Your task to perform on an android device: Open calendar and show me the third week of next month Image 0: 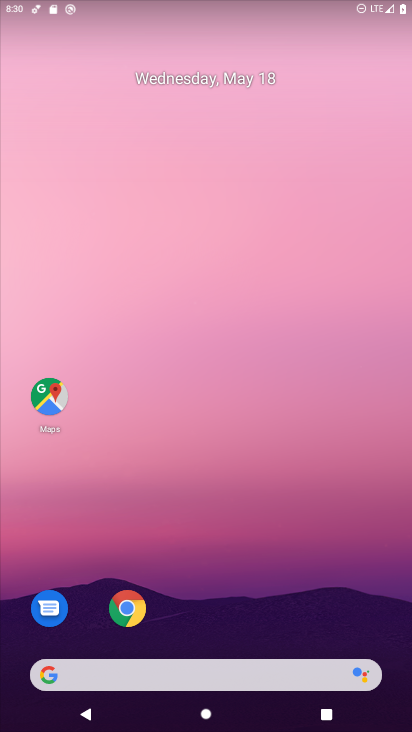
Step 0: drag from (271, 600) to (232, 105)
Your task to perform on an android device: Open calendar and show me the third week of next month Image 1: 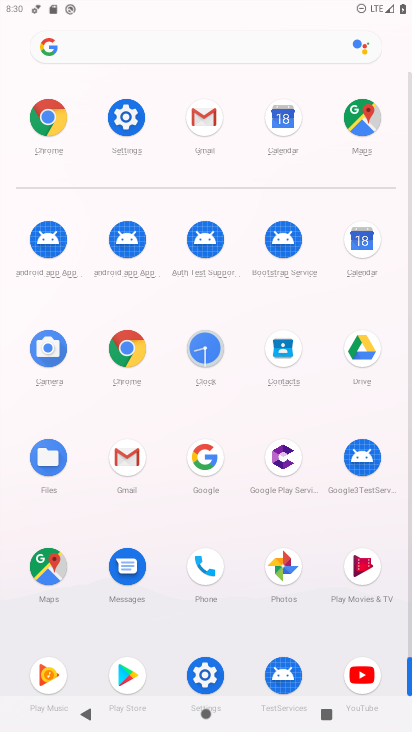
Step 1: click (365, 234)
Your task to perform on an android device: Open calendar and show me the third week of next month Image 2: 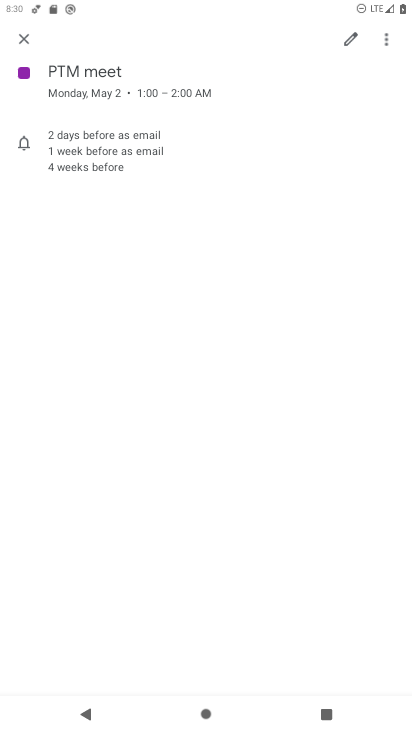
Step 2: click (23, 36)
Your task to perform on an android device: Open calendar and show me the third week of next month Image 3: 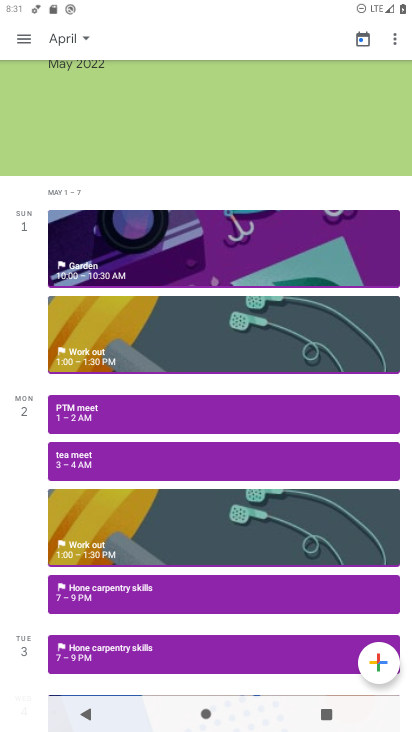
Step 3: click (33, 39)
Your task to perform on an android device: Open calendar and show me the third week of next month Image 4: 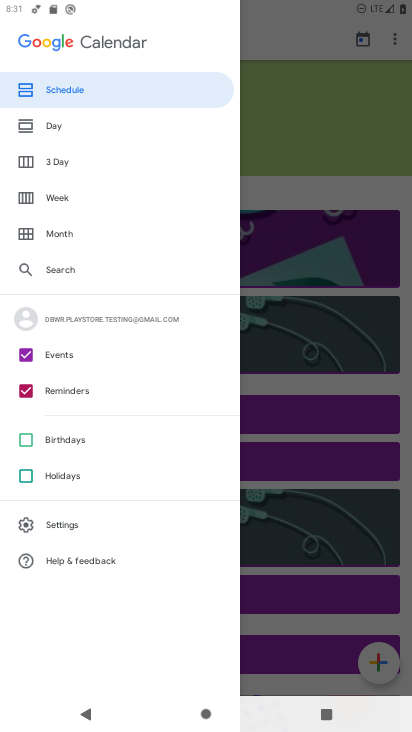
Step 4: click (67, 197)
Your task to perform on an android device: Open calendar and show me the third week of next month Image 5: 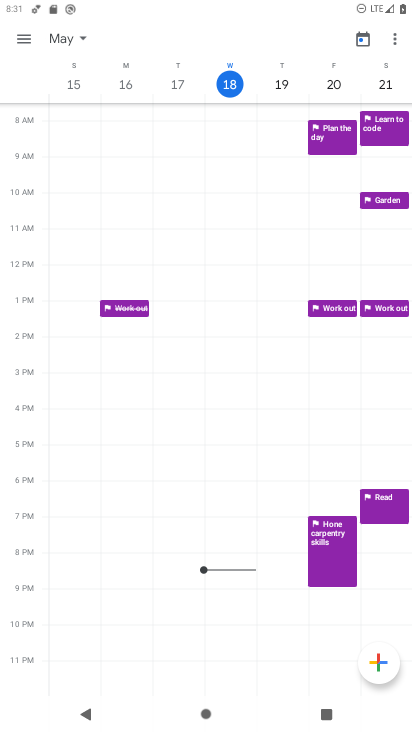
Step 5: click (75, 32)
Your task to perform on an android device: Open calendar and show me the third week of next month Image 6: 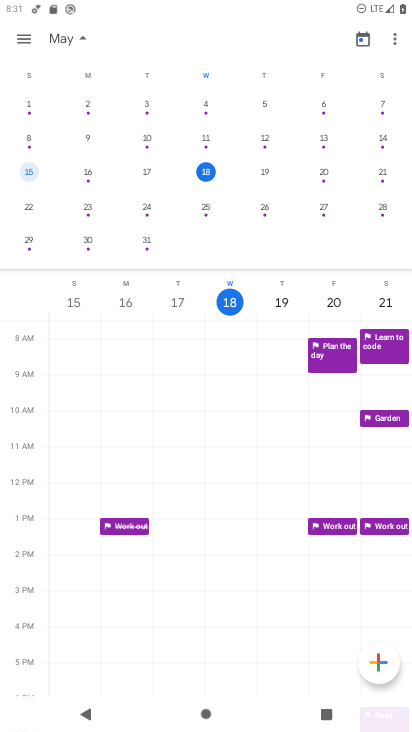
Step 6: drag from (318, 206) to (58, 179)
Your task to perform on an android device: Open calendar and show me the third week of next month Image 7: 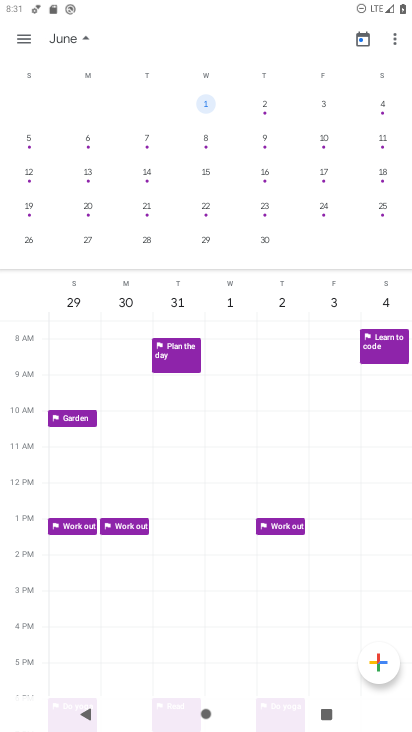
Step 7: click (81, 212)
Your task to perform on an android device: Open calendar and show me the third week of next month Image 8: 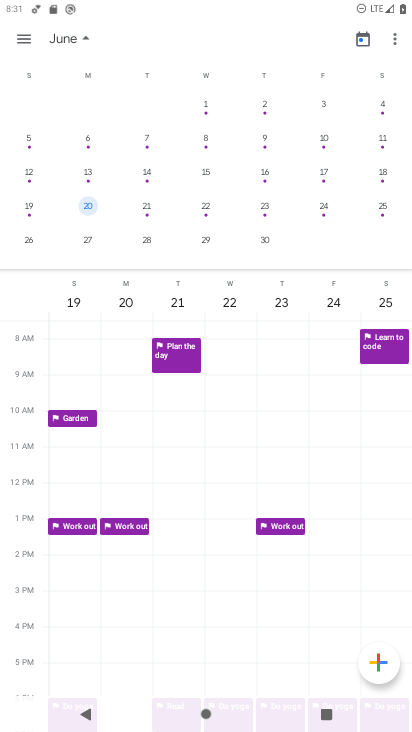
Step 8: task complete